Your task to perform on an android device: search for starred emails in the gmail app Image 0: 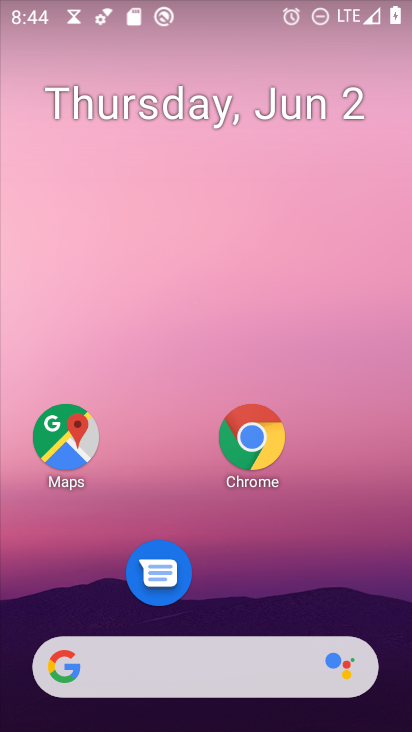
Step 0: press home button
Your task to perform on an android device: search for starred emails in the gmail app Image 1: 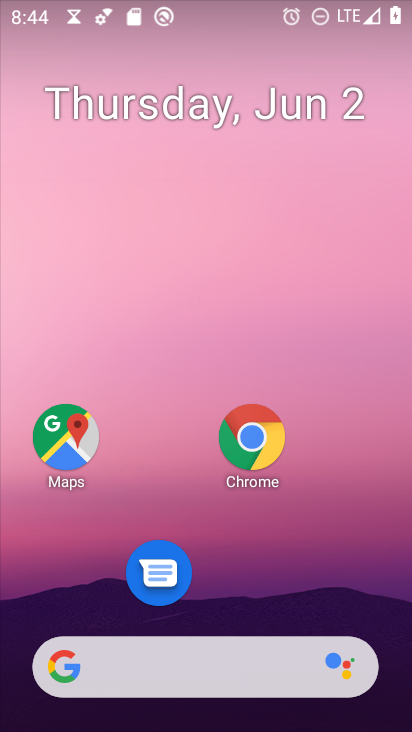
Step 1: drag from (132, 671) to (311, 127)
Your task to perform on an android device: search for starred emails in the gmail app Image 2: 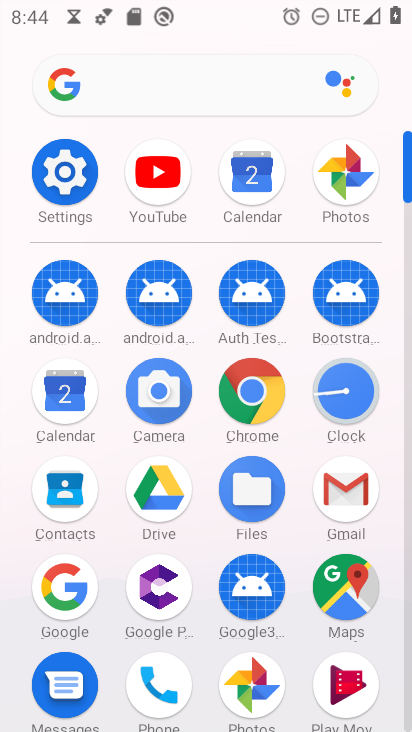
Step 2: click (341, 504)
Your task to perform on an android device: search for starred emails in the gmail app Image 3: 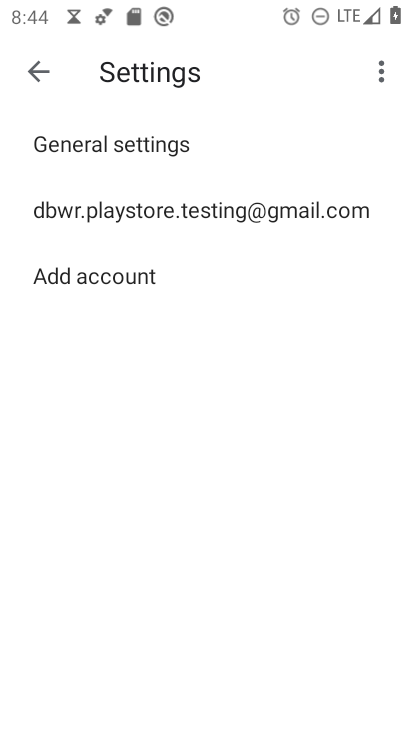
Step 3: click (43, 68)
Your task to perform on an android device: search for starred emails in the gmail app Image 4: 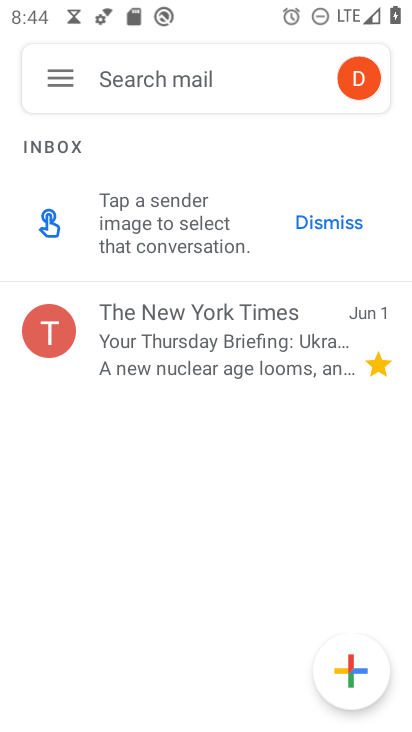
Step 4: click (60, 74)
Your task to perform on an android device: search for starred emails in the gmail app Image 5: 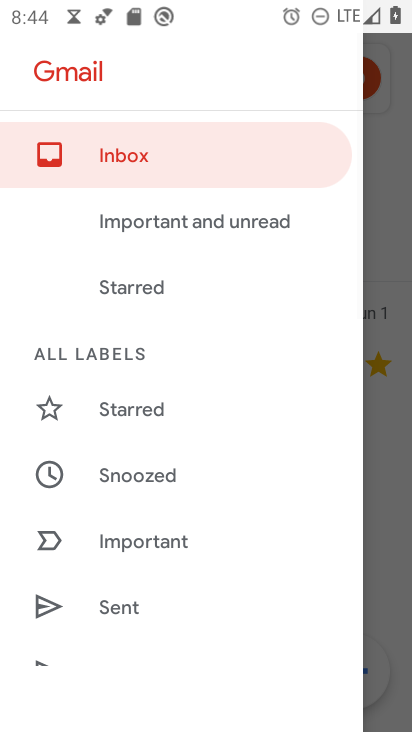
Step 5: click (144, 414)
Your task to perform on an android device: search for starred emails in the gmail app Image 6: 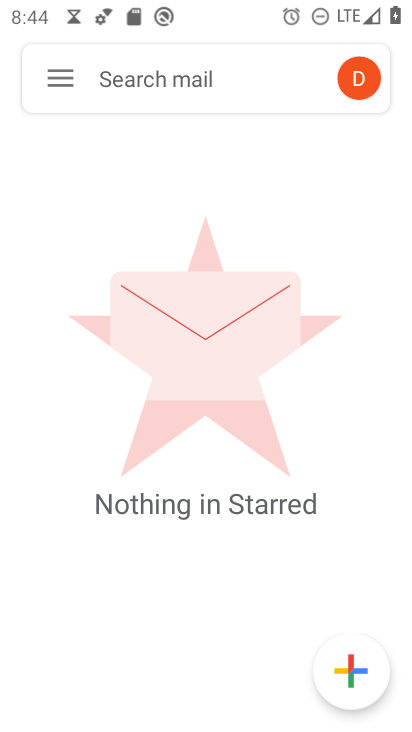
Step 6: task complete